Your task to perform on an android device: Open network settings Image 0: 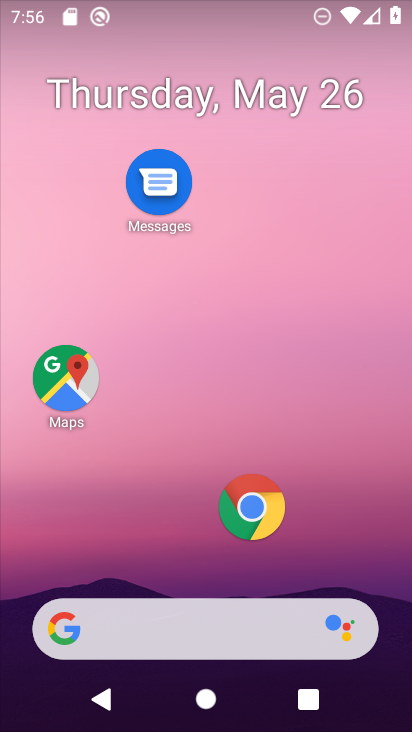
Step 0: drag from (188, 531) to (270, 67)
Your task to perform on an android device: Open network settings Image 1: 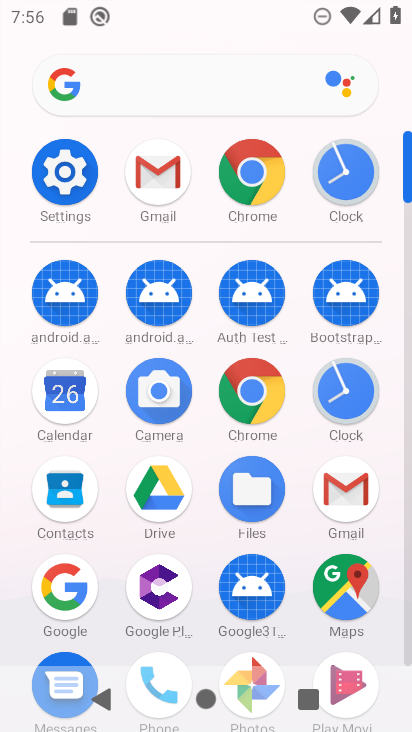
Step 1: click (45, 176)
Your task to perform on an android device: Open network settings Image 2: 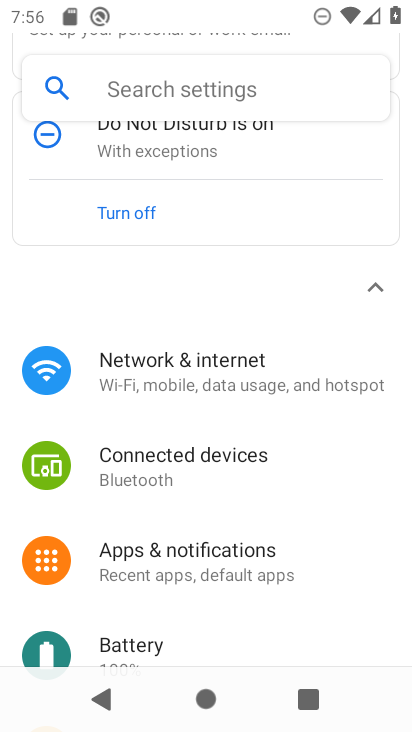
Step 2: click (207, 374)
Your task to perform on an android device: Open network settings Image 3: 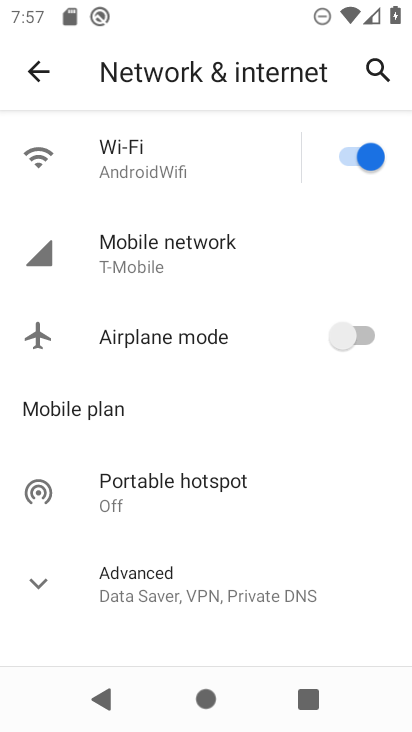
Step 3: task complete